Your task to perform on an android device: empty trash in the gmail app Image 0: 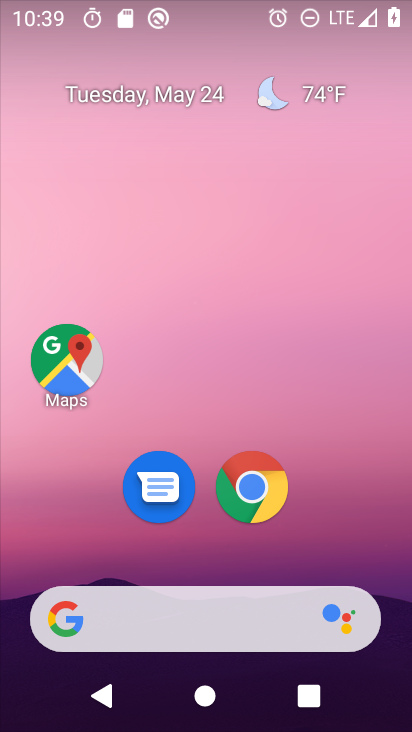
Step 0: drag from (371, 560) to (363, 19)
Your task to perform on an android device: empty trash in the gmail app Image 1: 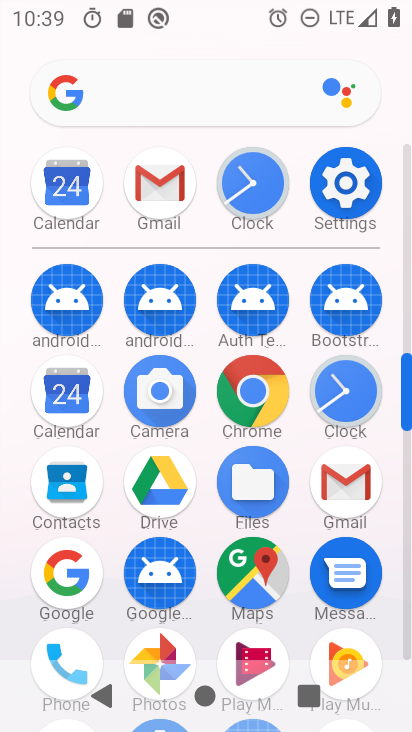
Step 1: click (164, 186)
Your task to perform on an android device: empty trash in the gmail app Image 2: 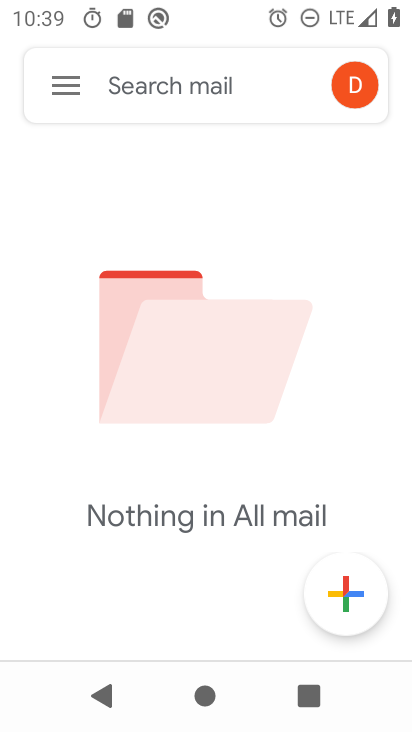
Step 2: click (68, 91)
Your task to perform on an android device: empty trash in the gmail app Image 3: 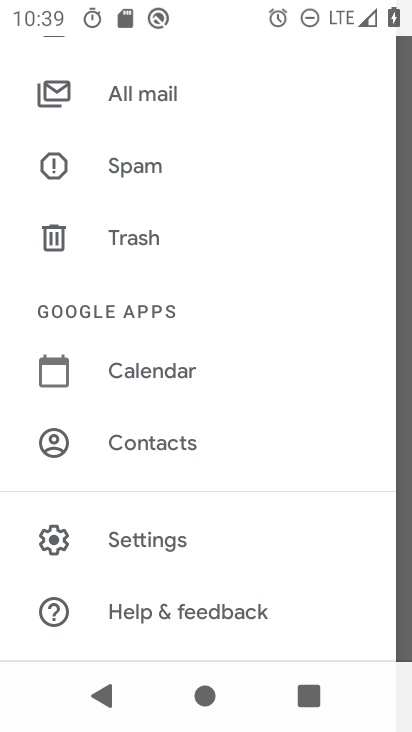
Step 3: click (128, 242)
Your task to perform on an android device: empty trash in the gmail app Image 4: 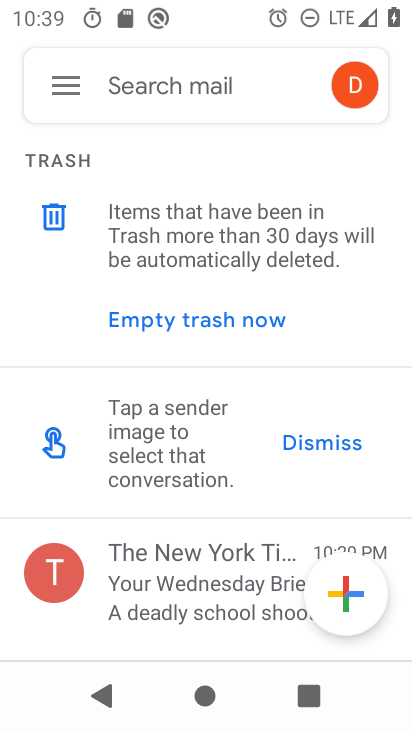
Step 4: drag from (202, 474) to (194, 302)
Your task to perform on an android device: empty trash in the gmail app Image 5: 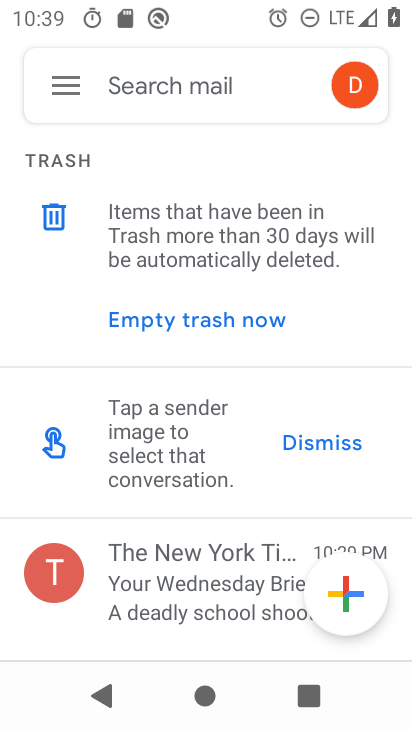
Step 5: click (187, 318)
Your task to perform on an android device: empty trash in the gmail app Image 6: 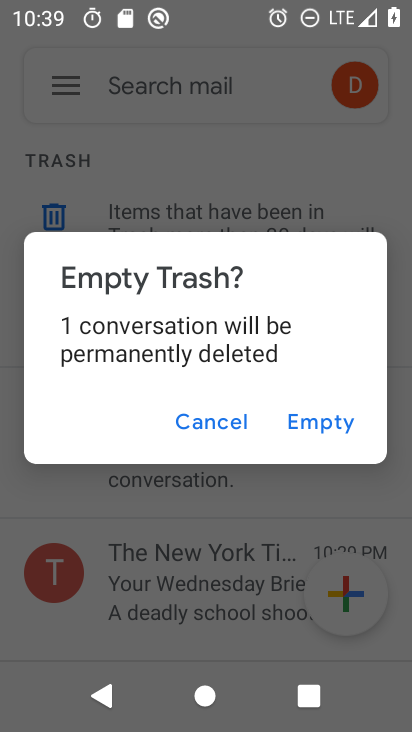
Step 6: click (319, 422)
Your task to perform on an android device: empty trash in the gmail app Image 7: 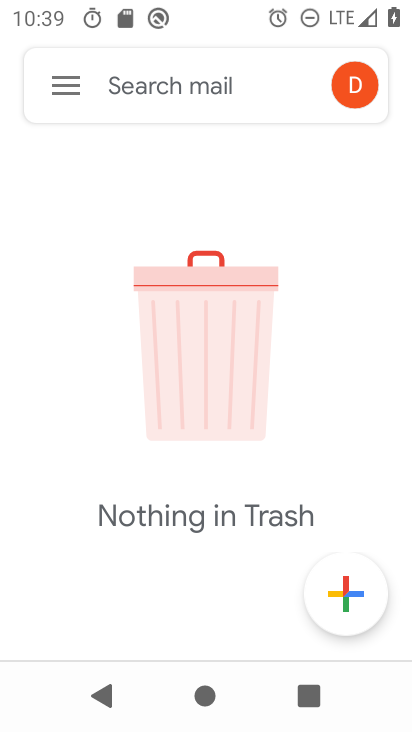
Step 7: task complete